Your task to perform on an android device: open a bookmark in the chrome app Image 0: 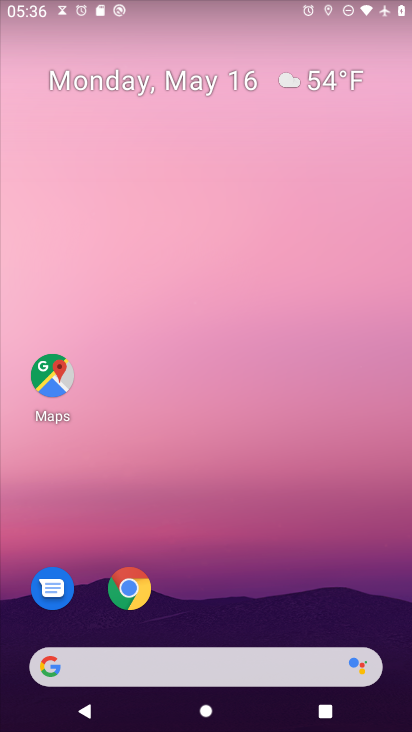
Step 0: drag from (264, 580) to (220, 10)
Your task to perform on an android device: open a bookmark in the chrome app Image 1: 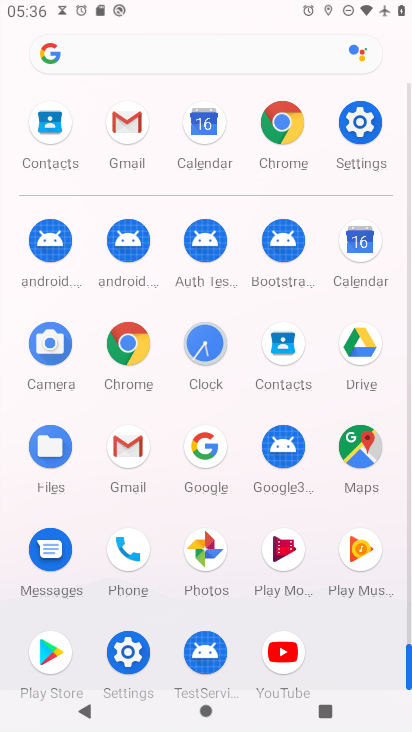
Step 1: click (129, 338)
Your task to perform on an android device: open a bookmark in the chrome app Image 2: 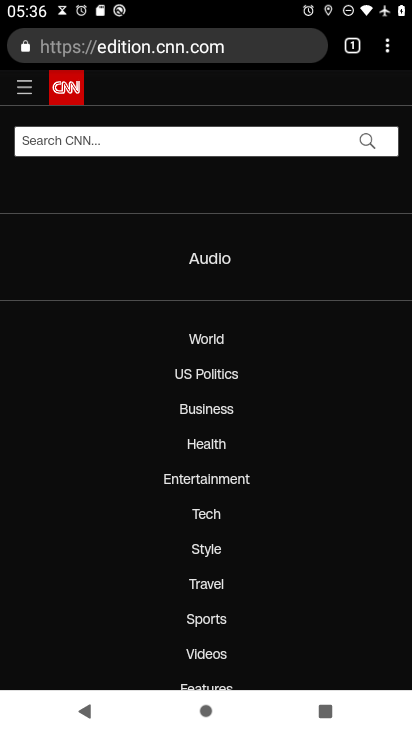
Step 2: task complete